Your task to perform on an android device: Open calendar and show me the first week of next month Image 0: 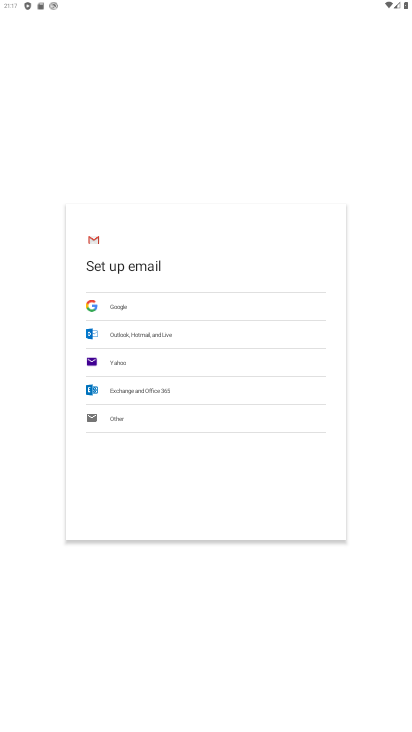
Step 0: press home button
Your task to perform on an android device: Open calendar and show me the first week of next month Image 1: 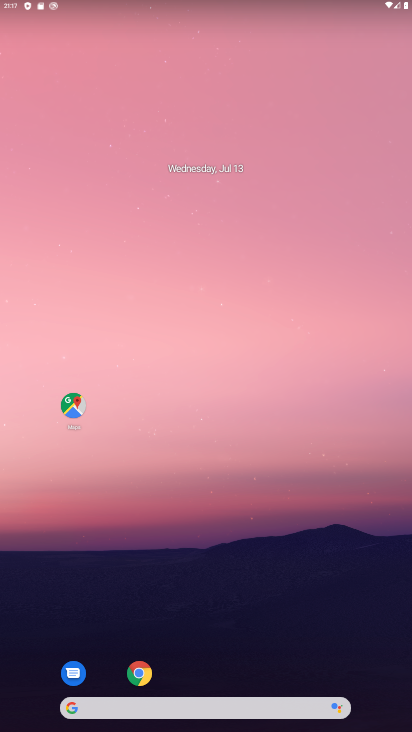
Step 1: drag from (202, 669) to (225, 224)
Your task to perform on an android device: Open calendar and show me the first week of next month Image 2: 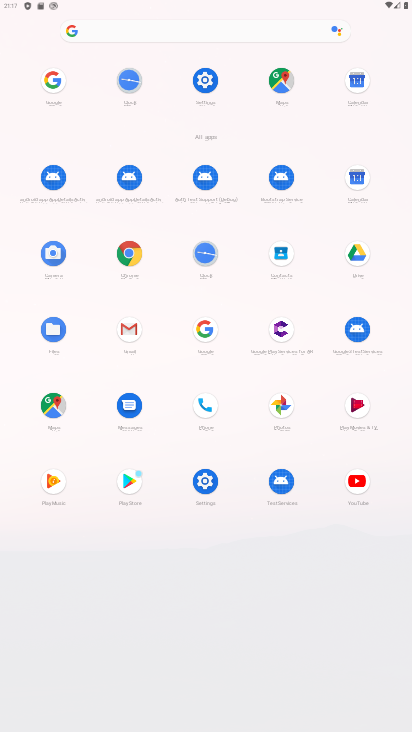
Step 2: click (362, 175)
Your task to perform on an android device: Open calendar and show me the first week of next month Image 3: 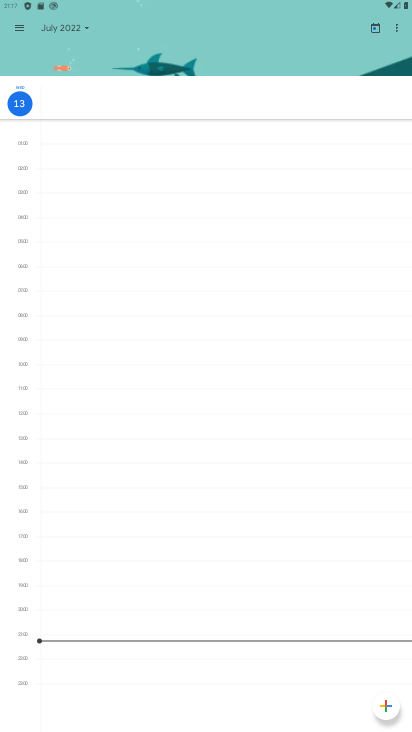
Step 3: click (59, 26)
Your task to perform on an android device: Open calendar and show me the first week of next month Image 4: 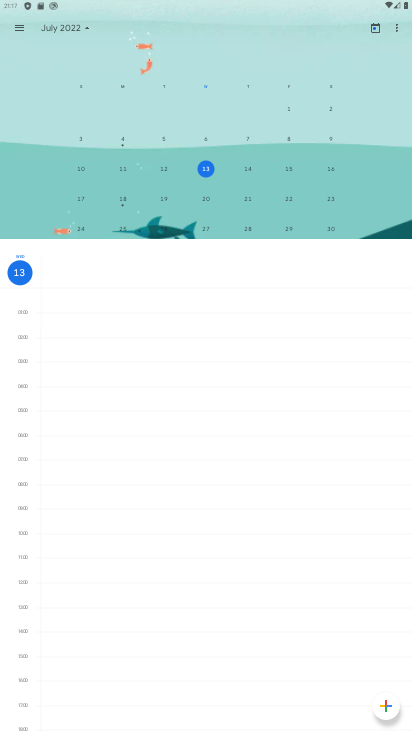
Step 4: task complete